Your task to perform on an android device: delete browsing data in the chrome app Image 0: 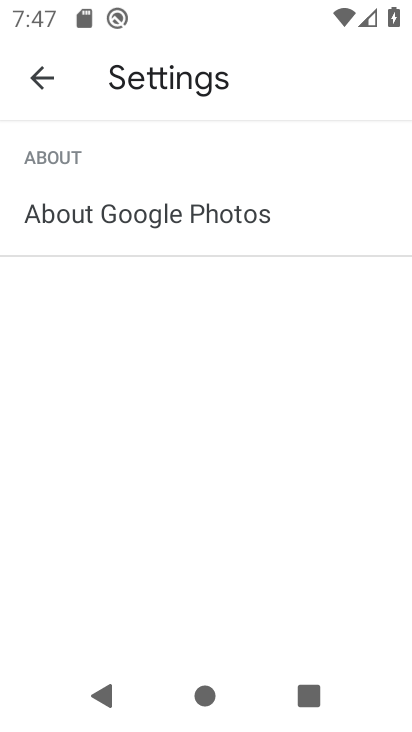
Step 0: press home button
Your task to perform on an android device: delete browsing data in the chrome app Image 1: 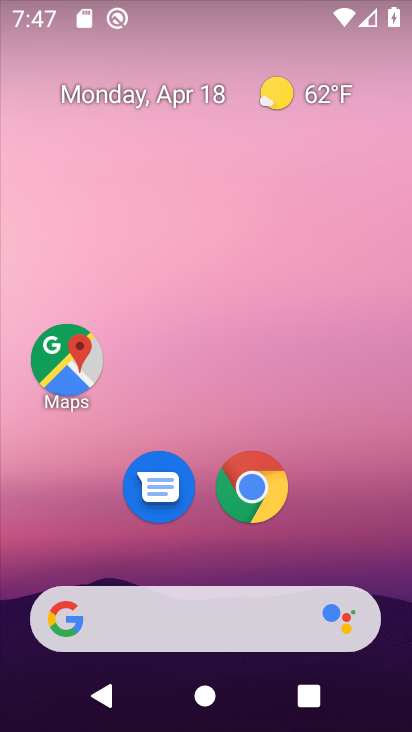
Step 1: click (253, 486)
Your task to perform on an android device: delete browsing data in the chrome app Image 2: 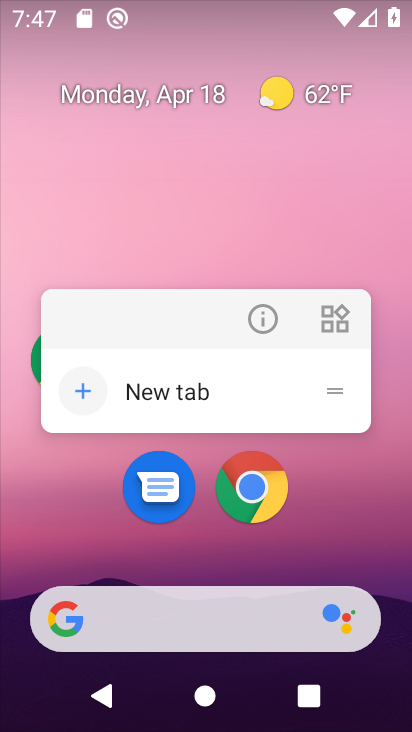
Step 2: click (261, 487)
Your task to perform on an android device: delete browsing data in the chrome app Image 3: 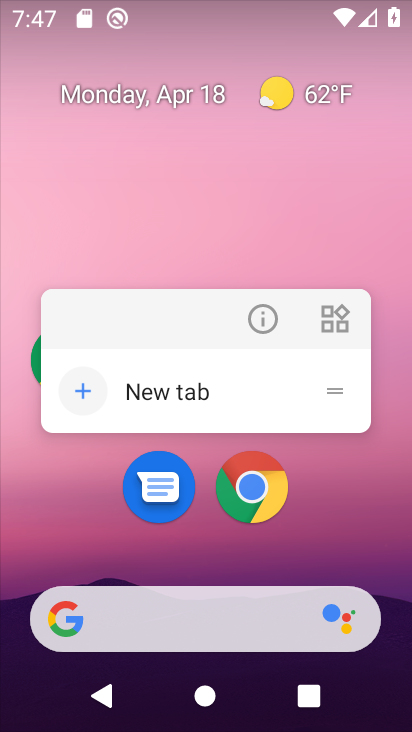
Step 3: click (351, 497)
Your task to perform on an android device: delete browsing data in the chrome app Image 4: 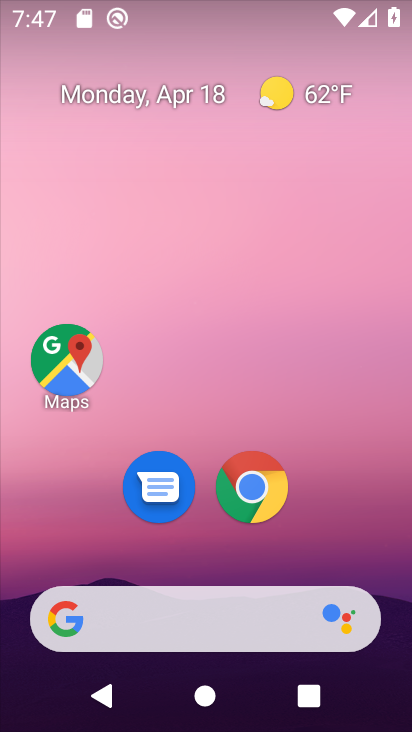
Step 4: click (259, 486)
Your task to perform on an android device: delete browsing data in the chrome app Image 5: 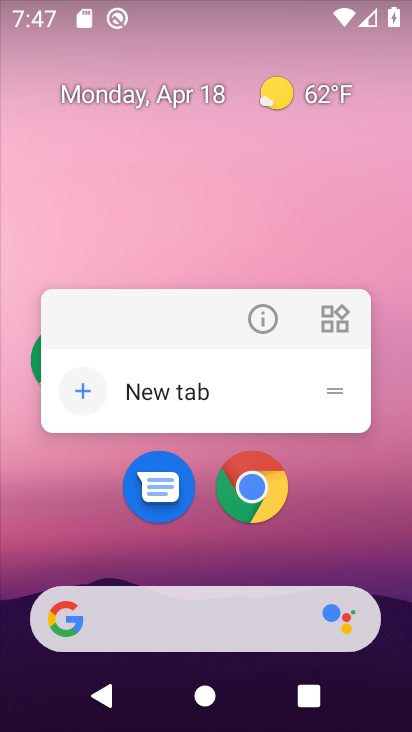
Step 5: click (314, 495)
Your task to perform on an android device: delete browsing data in the chrome app Image 6: 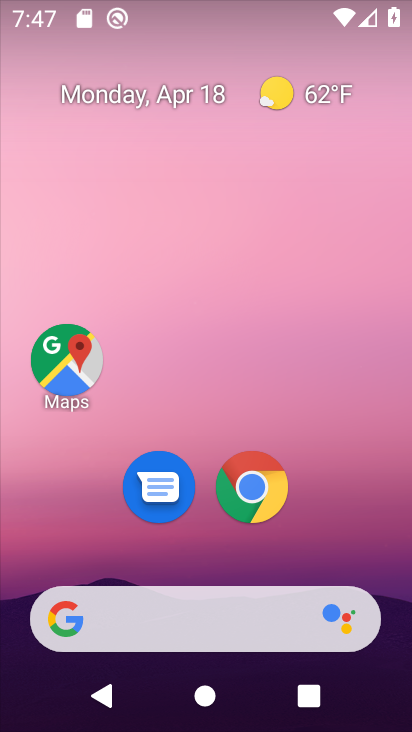
Step 6: click (250, 484)
Your task to perform on an android device: delete browsing data in the chrome app Image 7: 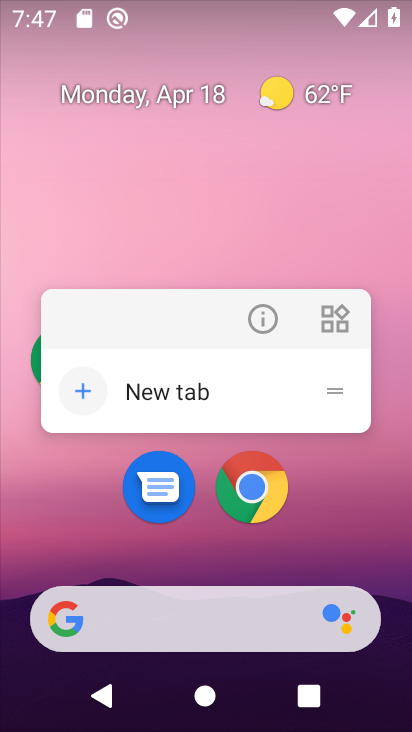
Step 7: click (250, 484)
Your task to perform on an android device: delete browsing data in the chrome app Image 8: 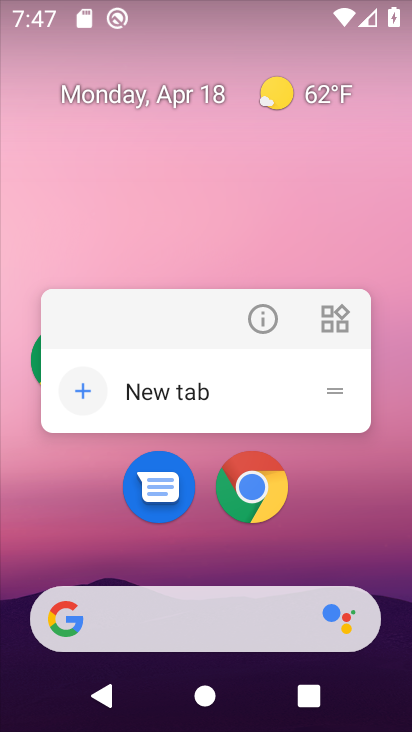
Step 8: click (250, 484)
Your task to perform on an android device: delete browsing data in the chrome app Image 9: 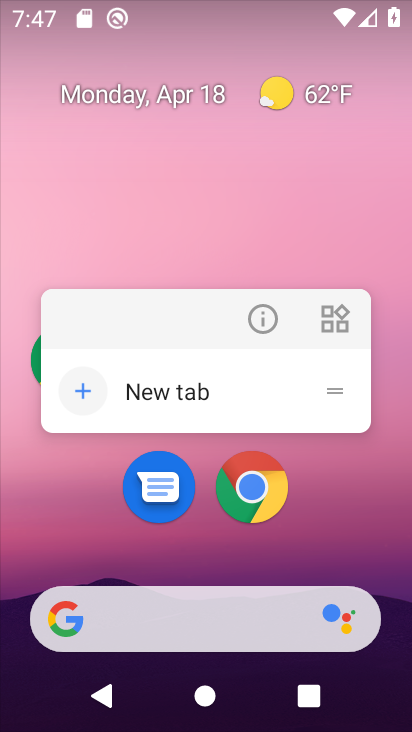
Step 9: click (250, 484)
Your task to perform on an android device: delete browsing data in the chrome app Image 10: 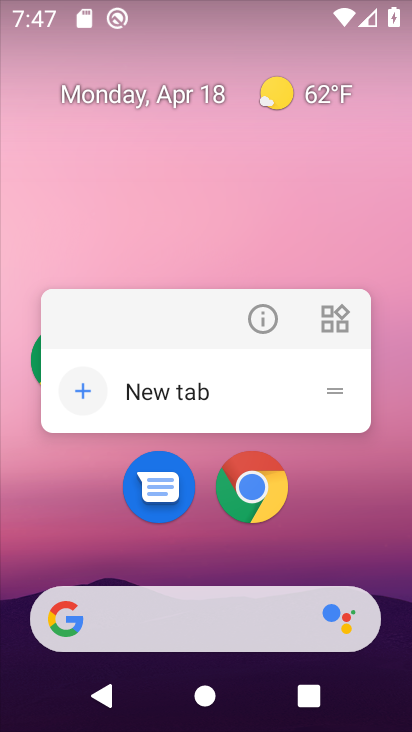
Step 10: click (250, 484)
Your task to perform on an android device: delete browsing data in the chrome app Image 11: 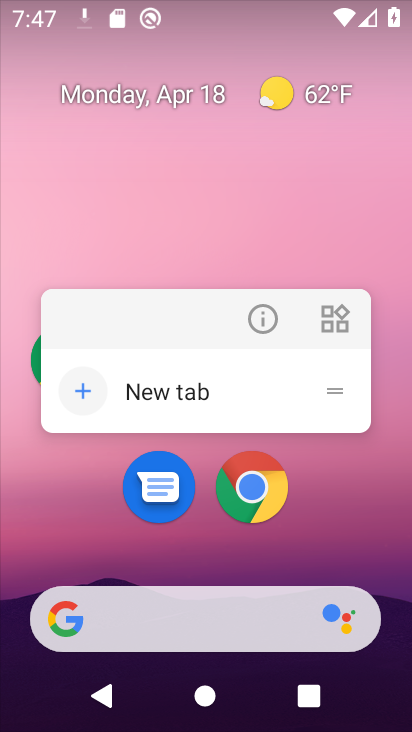
Step 11: click (311, 492)
Your task to perform on an android device: delete browsing data in the chrome app Image 12: 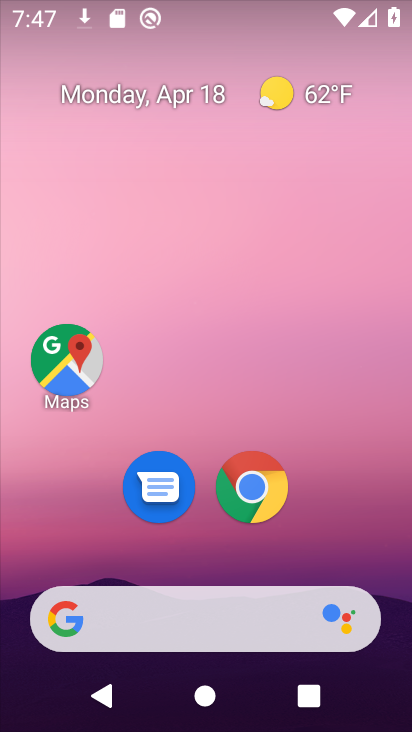
Step 12: drag from (378, 492) to (307, 342)
Your task to perform on an android device: delete browsing data in the chrome app Image 13: 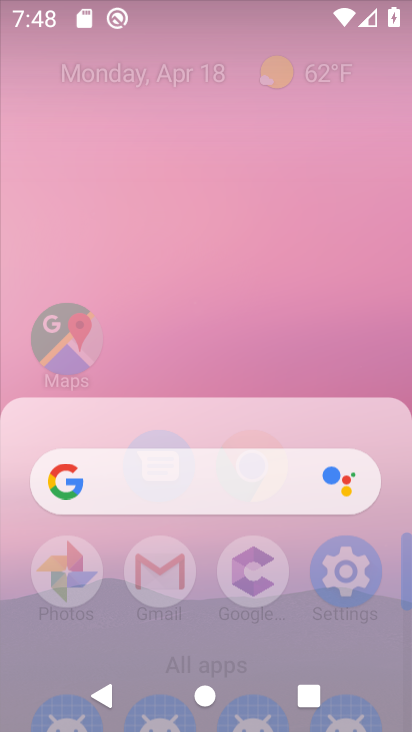
Step 13: click (260, 481)
Your task to perform on an android device: delete browsing data in the chrome app Image 14: 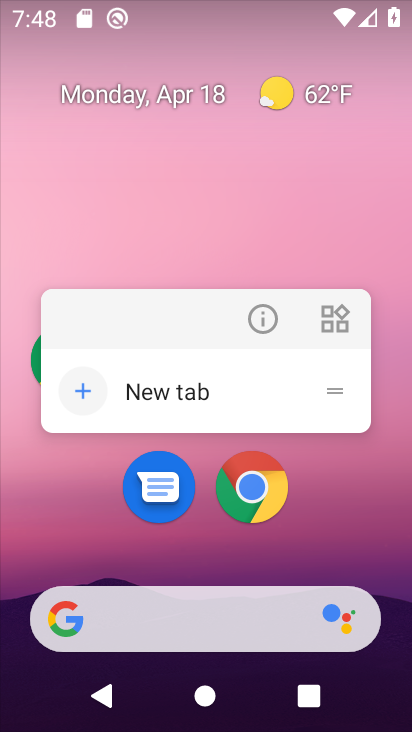
Step 14: click (315, 516)
Your task to perform on an android device: delete browsing data in the chrome app Image 15: 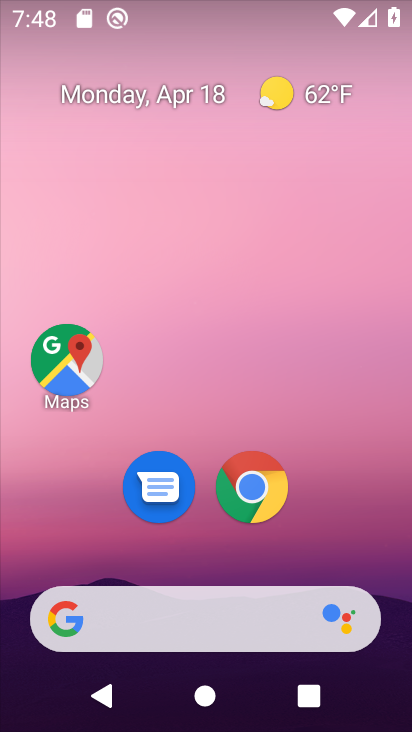
Step 15: click (249, 485)
Your task to perform on an android device: delete browsing data in the chrome app Image 16: 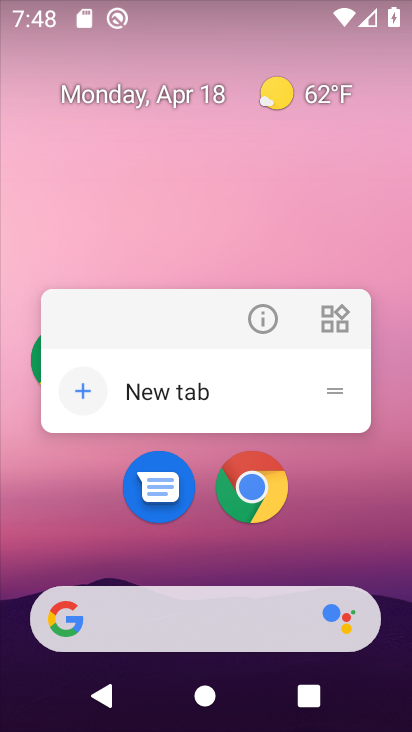
Step 16: click (321, 524)
Your task to perform on an android device: delete browsing data in the chrome app Image 17: 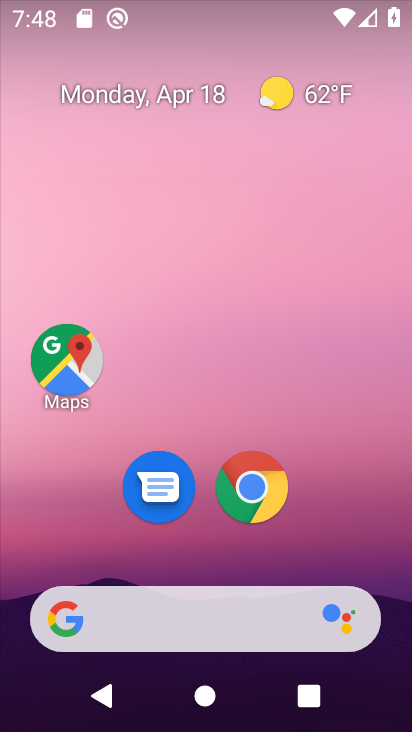
Step 17: click (264, 306)
Your task to perform on an android device: delete browsing data in the chrome app Image 18: 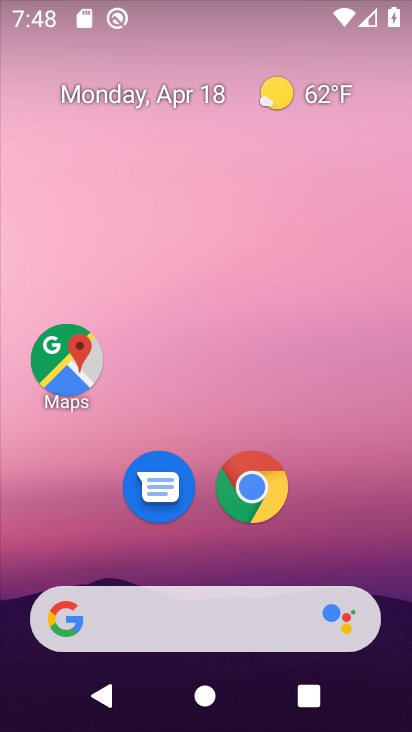
Step 18: drag from (247, 559) to (285, 10)
Your task to perform on an android device: delete browsing data in the chrome app Image 19: 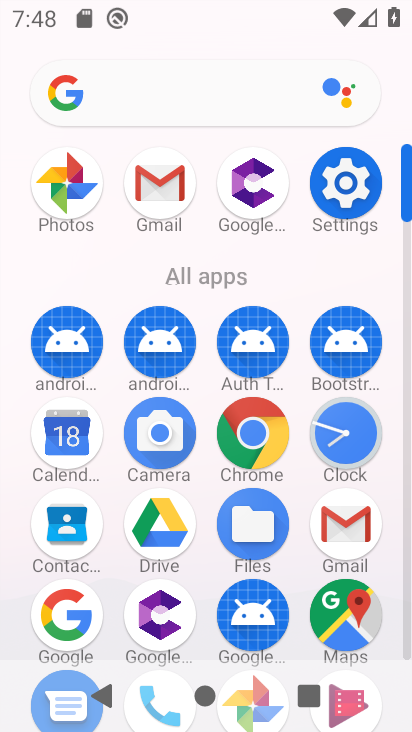
Step 19: click (250, 429)
Your task to perform on an android device: delete browsing data in the chrome app Image 20: 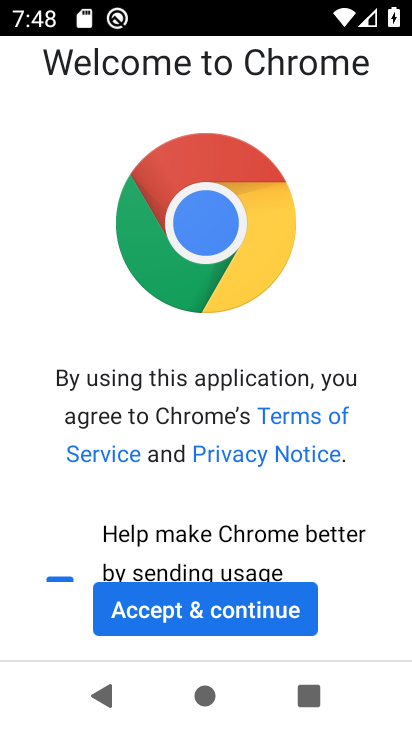
Step 20: click (201, 599)
Your task to perform on an android device: delete browsing data in the chrome app Image 21: 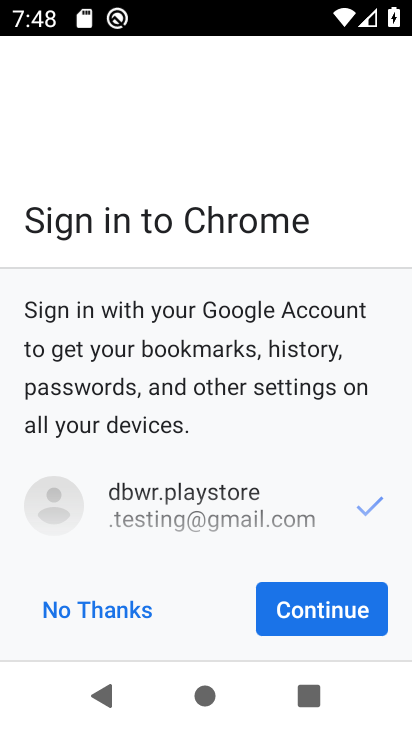
Step 21: click (347, 608)
Your task to perform on an android device: delete browsing data in the chrome app Image 22: 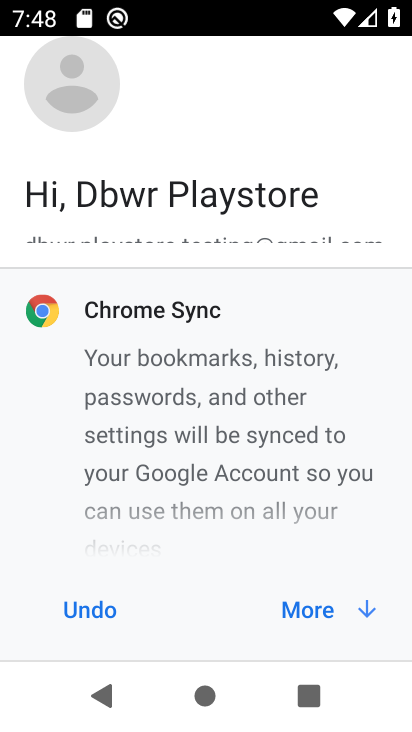
Step 22: click (310, 606)
Your task to perform on an android device: delete browsing data in the chrome app Image 23: 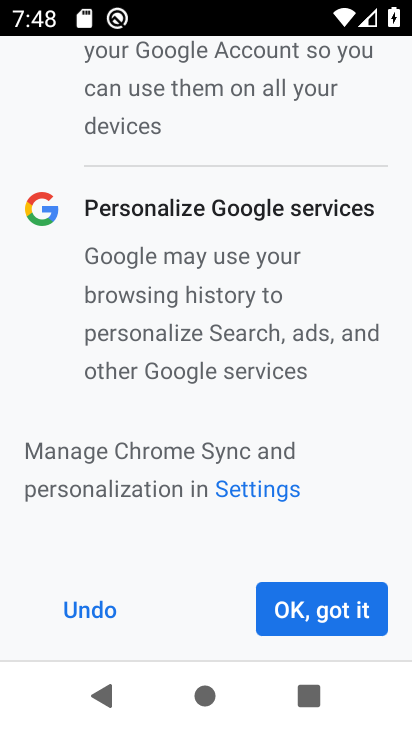
Step 23: click (321, 593)
Your task to perform on an android device: delete browsing data in the chrome app Image 24: 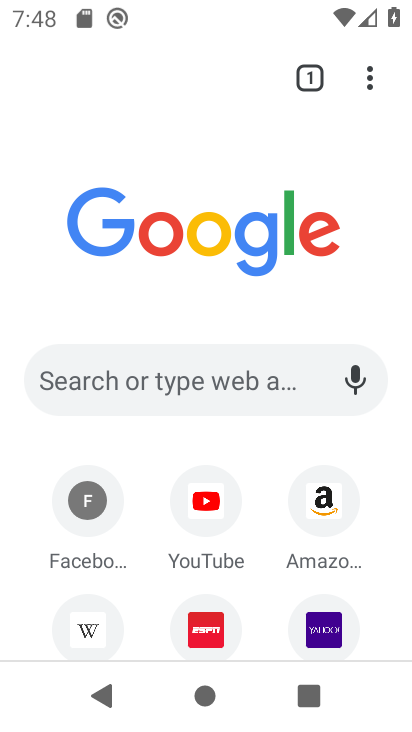
Step 24: click (366, 74)
Your task to perform on an android device: delete browsing data in the chrome app Image 25: 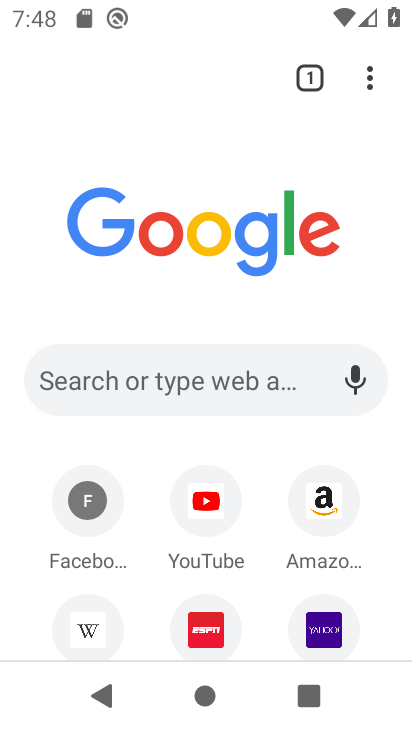
Step 25: click (366, 74)
Your task to perform on an android device: delete browsing data in the chrome app Image 26: 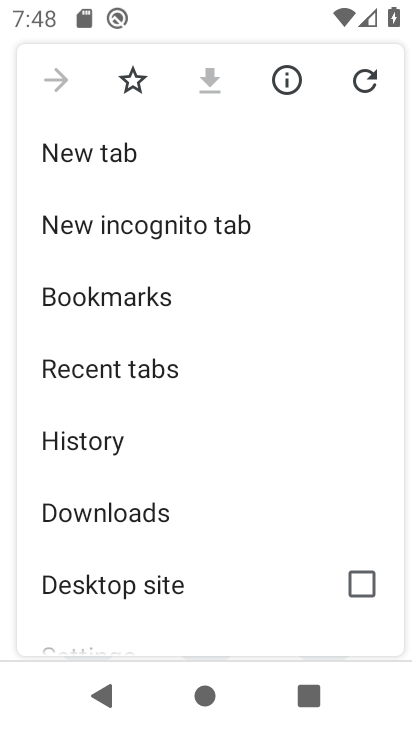
Step 26: click (122, 442)
Your task to perform on an android device: delete browsing data in the chrome app Image 27: 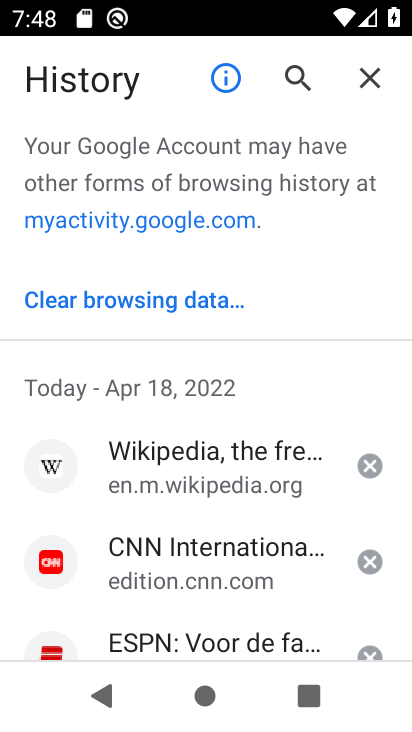
Step 27: click (130, 297)
Your task to perform on an android device: delete browsing data in the chrome app Image 28: 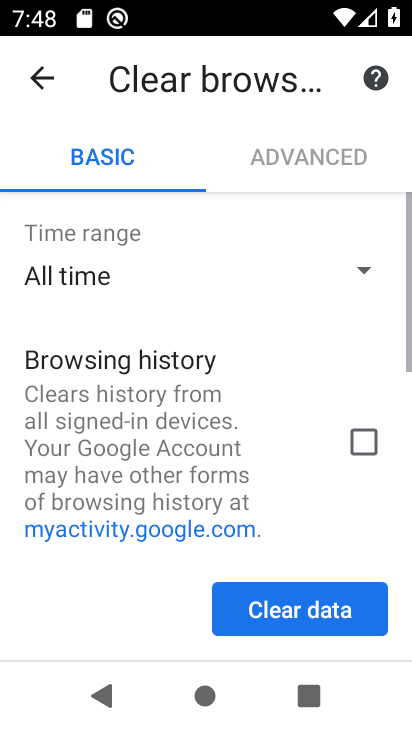
Step 28: click (362, 432)
Your task to perform on an android device: delete browsing data in the chrome app Image 29: 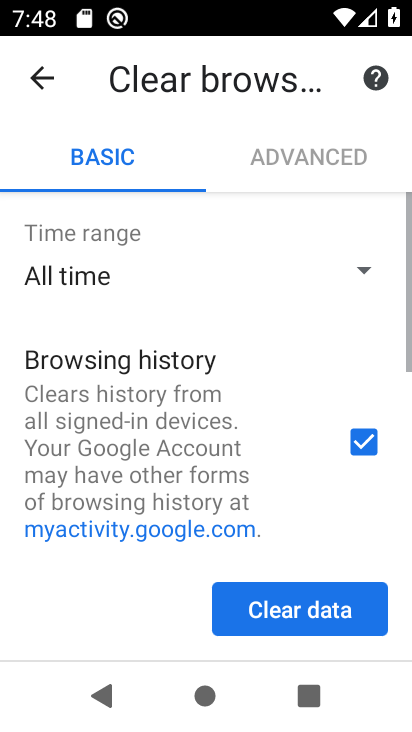
Step 29: drag from (197, 510) to (267, 104)
Your task to perform on an android device: delete browsing data in the chrome app Image 30: 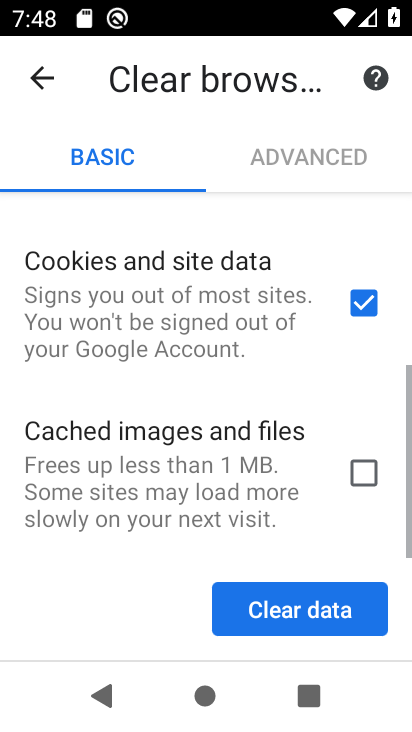
Step 30: click (352, 469)
Your task to perform on an android device: delete browsing data in the chrome app Image 31: 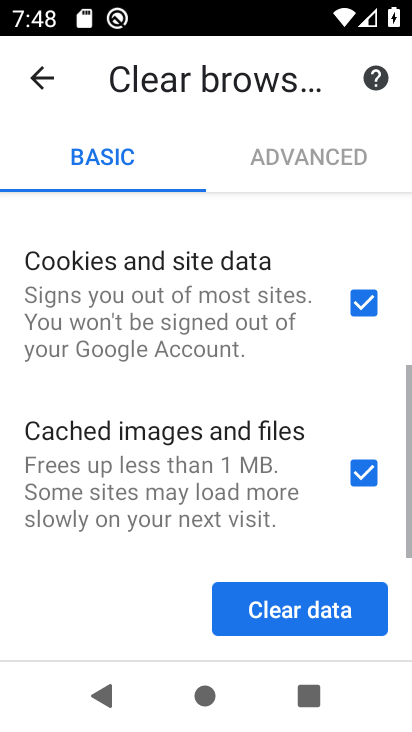
Step 31: click (290, 607)
Your task to perform on an android device: delete browsing data in the chrome app Image 32: 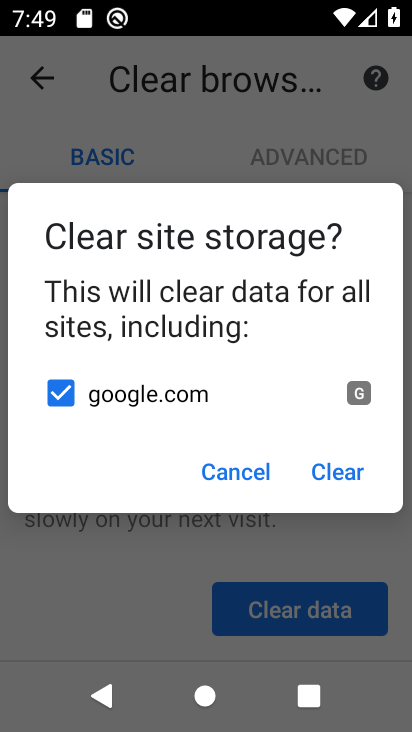
Step 32: click (331, 457)
Your task to perform on an android device: delete browsing data in the chrome app Image 33: 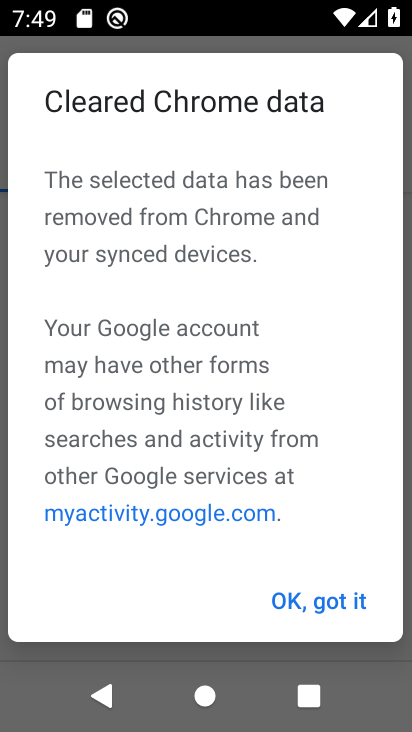
Step 33: click (335, 596)
Your task to perform on an android device: delete browsing data in the chrome app Image 34: 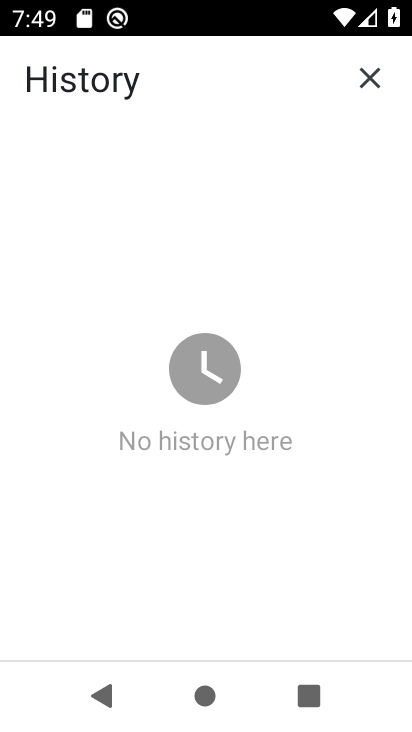
Step 34: task complete